Your task to perform on an android device: What's on my calendar tomorrow? Image 0: 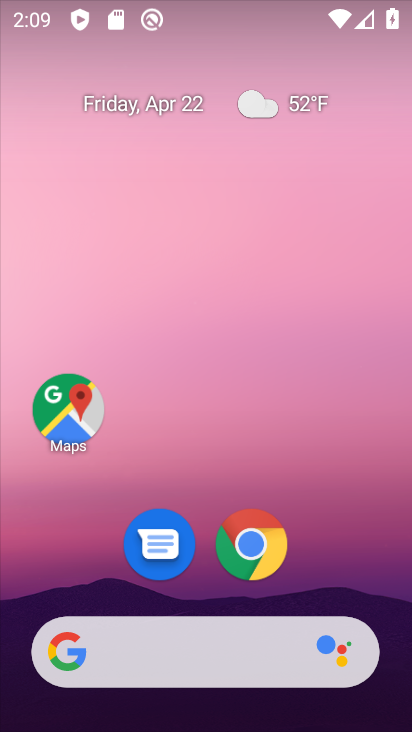
Step 0: click (144, 106)
Your task to perform on an android device: What's on my calendar tomorrow? Image 1: 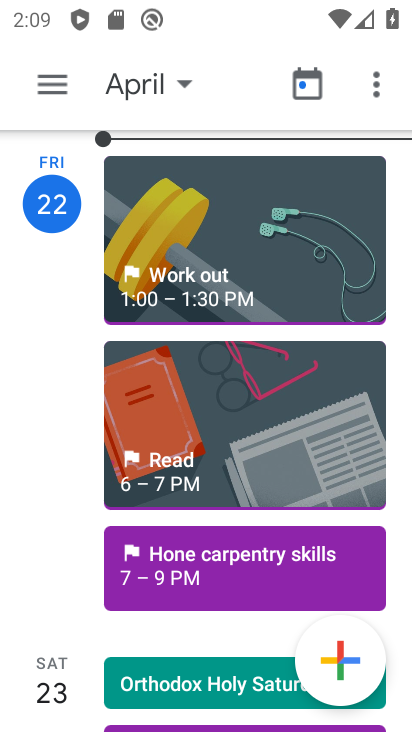
Step 1: click (140, 72)
Your task to perform on an android device: What's on my calendar tomorrow? Image 2: 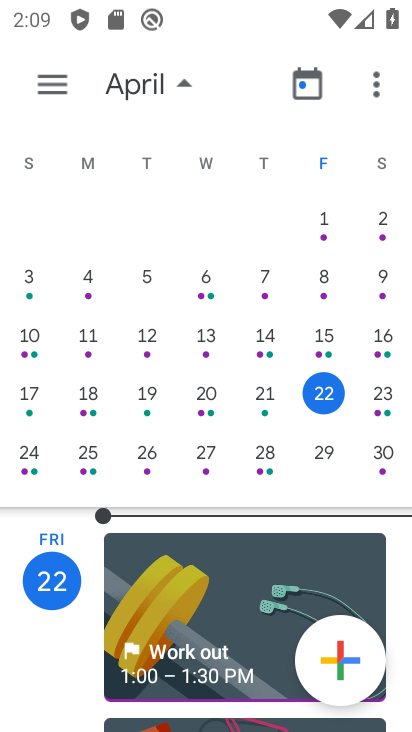
Step 2: click (381, 409)
Your task to perform on an android device: What's on my calendar tomorrow? Image 3: 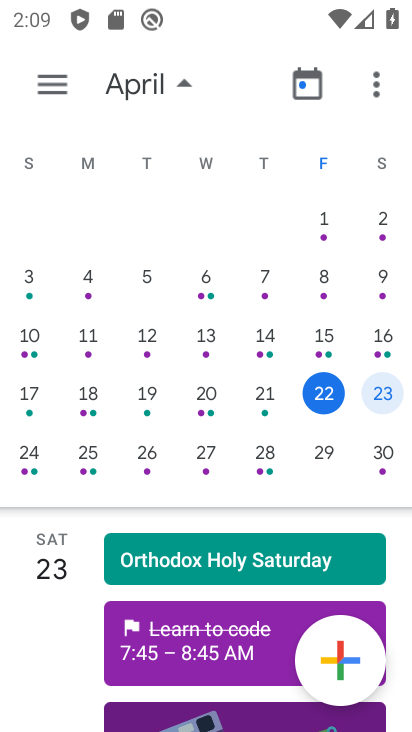
Step 3: task complete